Your task to perform on an android device: add a contact Image 0: 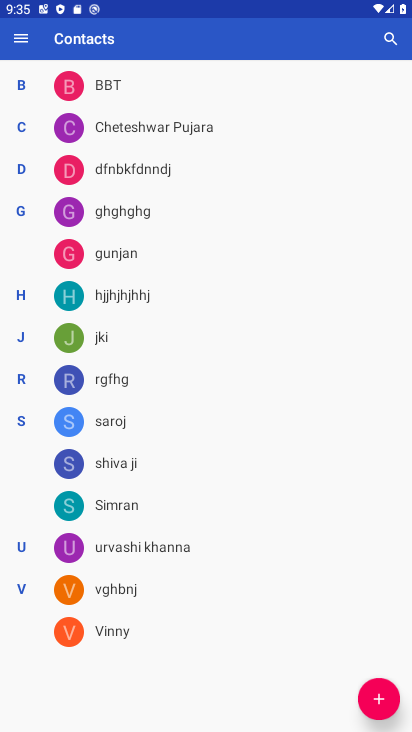
Step 0: press home button
Your task to perform on an android device: add a contact Image 1: 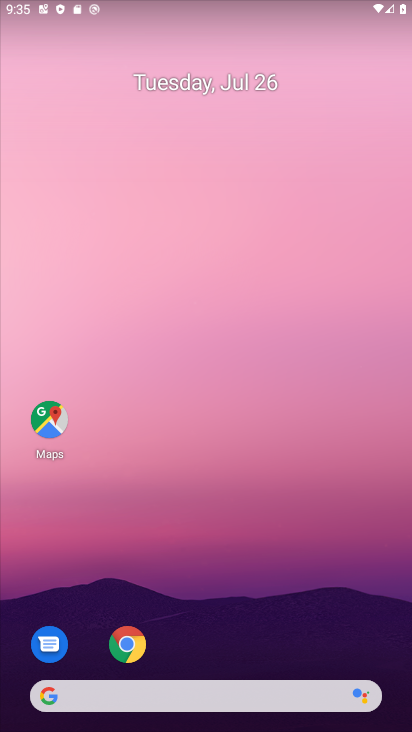
Step 1: drag from (261, 576) to (203, 3)
Your task to perform on an android device: add a contact Image 2: 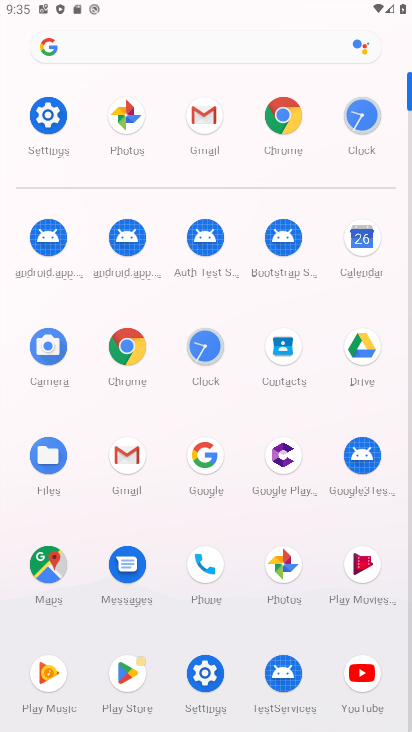
Step 2: click (286, 375)
Your task to perform on an android device: add a contact Image 3: 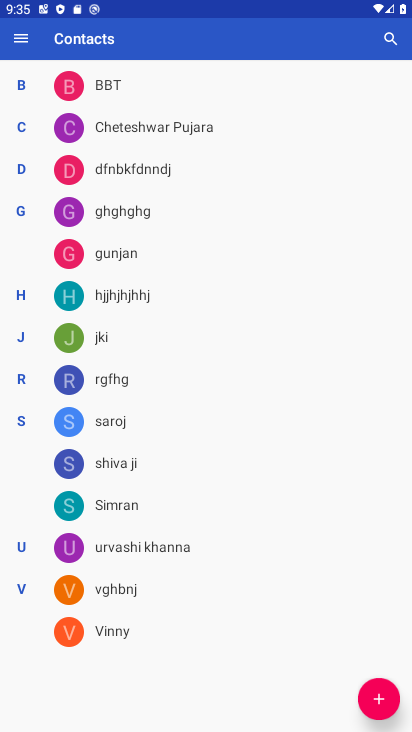
Step 3: click (386, 705)
Your task to perform on an android device: add a contact Image 4: 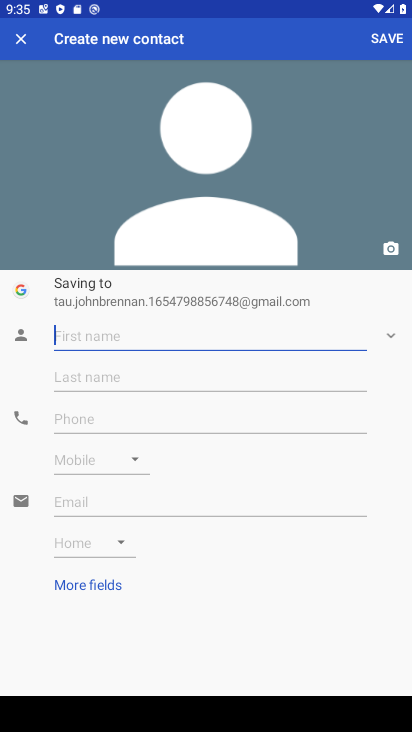
Step 4: type "vinegaaa"
Your task to perform on an android device: add a contact Image 5: 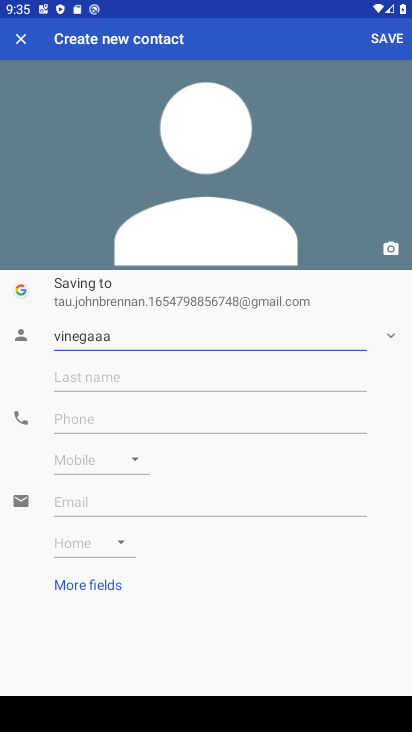
Step 5: click (394, 40)
Your task to perform on an android device: add a contact Image 6: 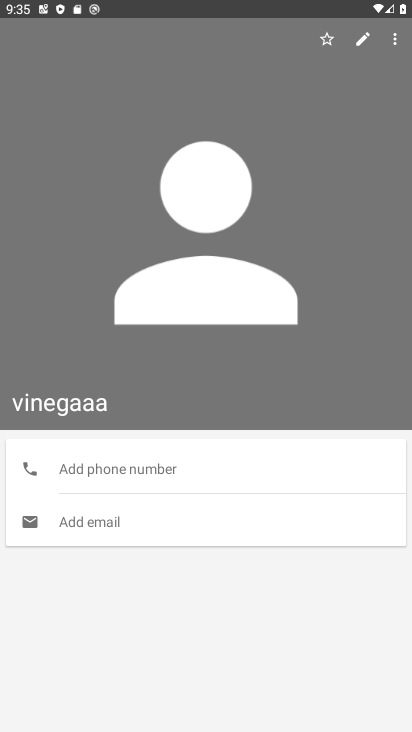
Step 6: task complete